Your task to perform on an android device: What's the time in San Francisco? Image 0: 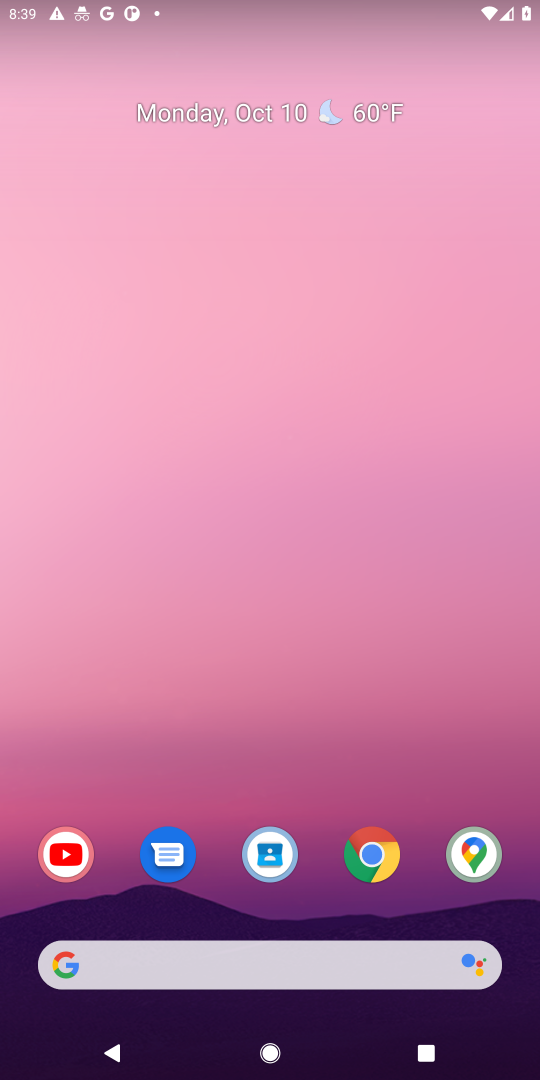
Step 0: click (375, 854)
Your task to perform on an android device: What's the time in San Francisco? Image 1: 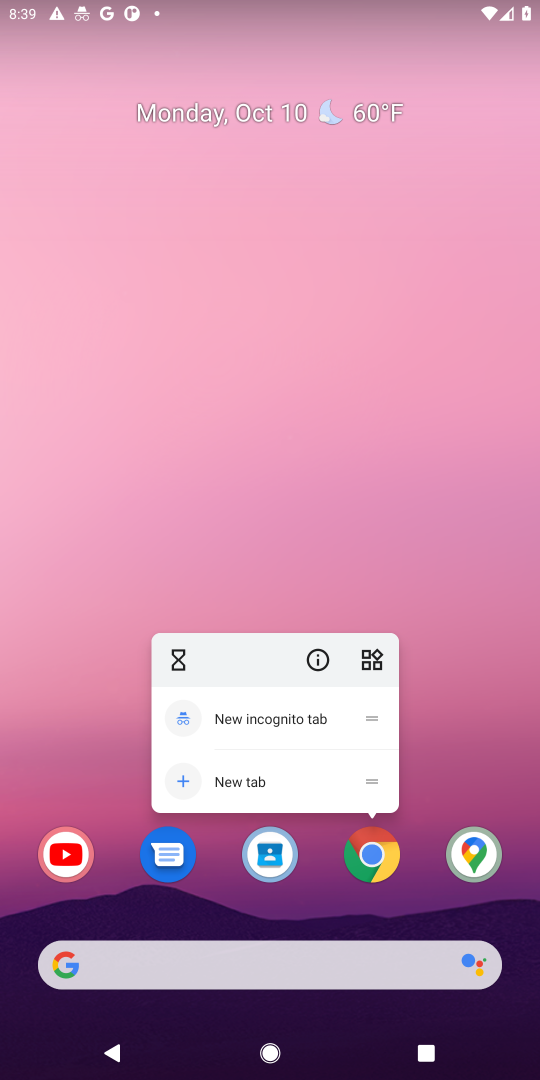
Step 1: click (368, 857)
Your task to perform on an android device: What's the time in San Francisco? Image 2: 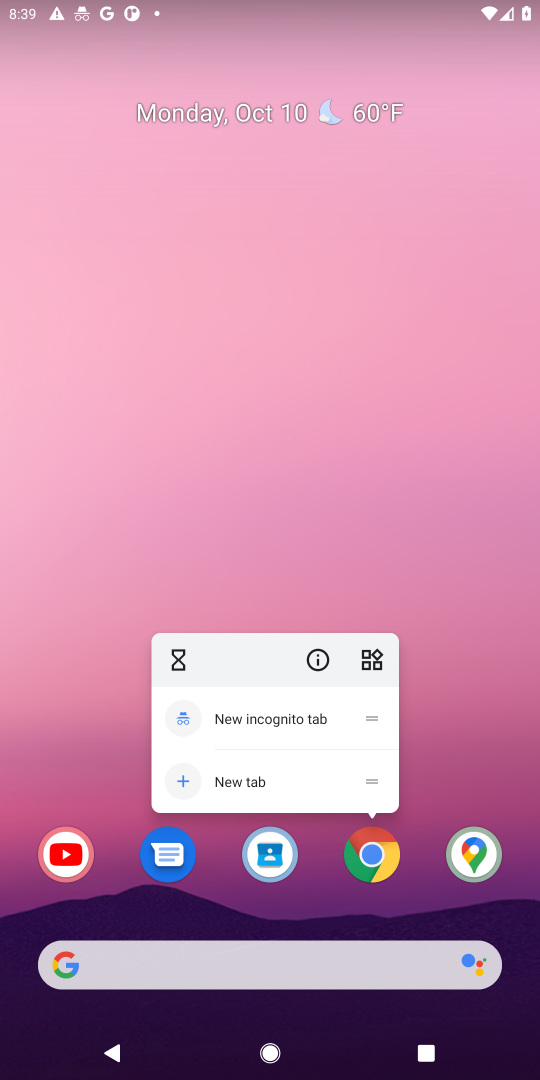
Step 2: click (367, 845)
Your task to perform on an android device: What's the time in San Francisco? Image 3: 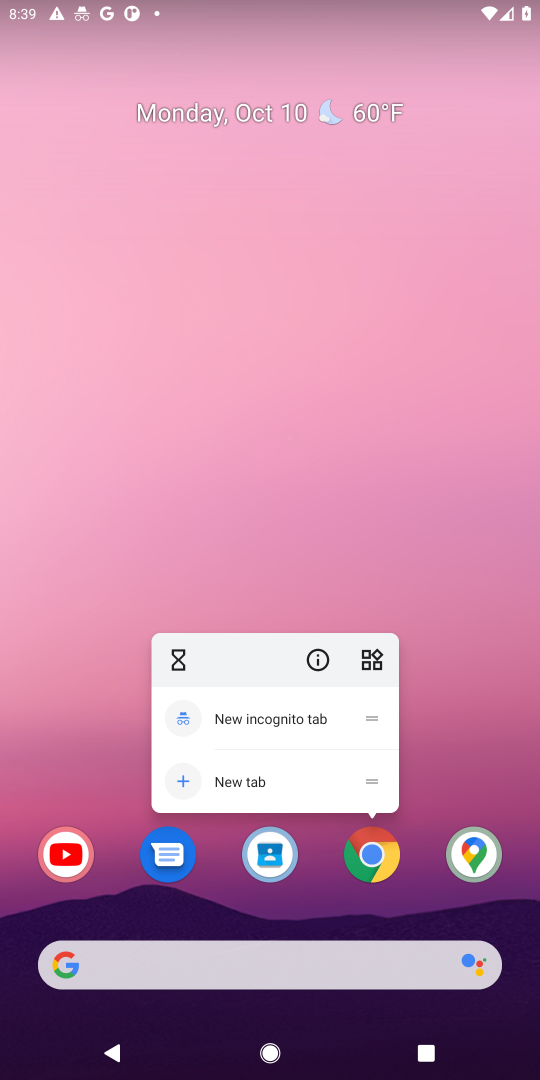
Step 3: click (367, 845)
Your task to perform on an android device: What's the time in San Francisco? Image 4: 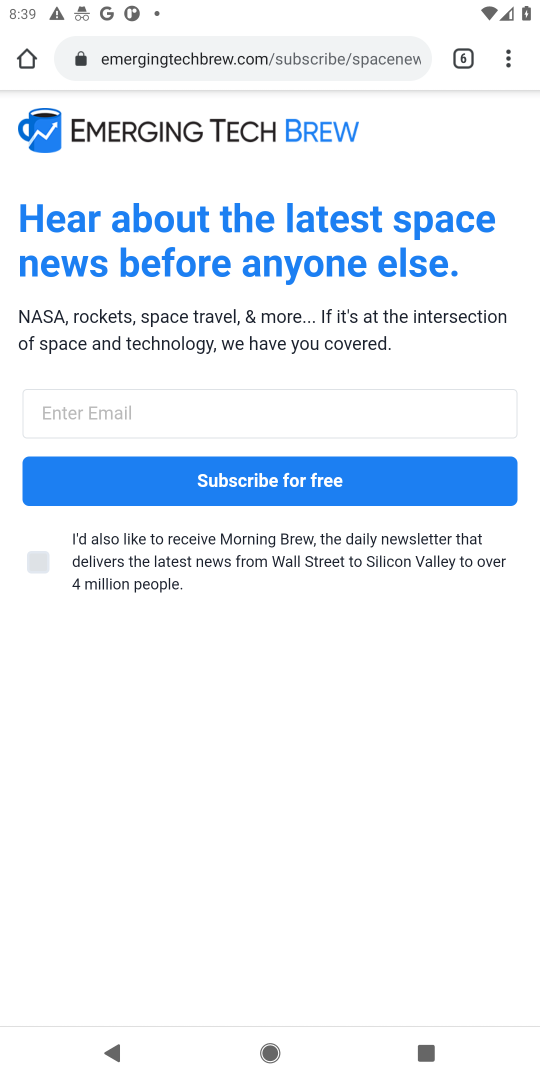
Step 4: click (283, 51)
Your task to perform on an android device: What's the time in San Francisco? Image 5: 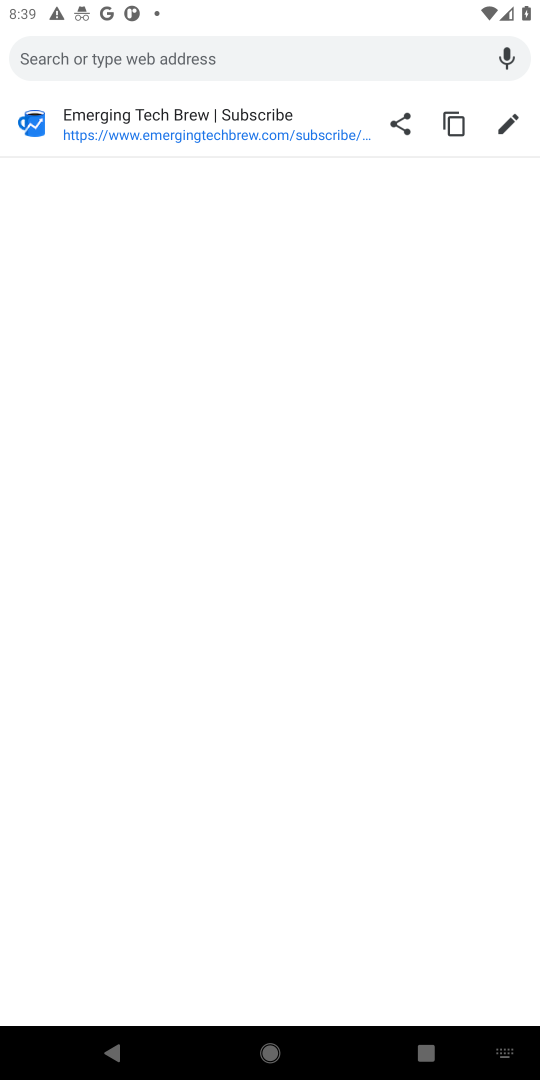
Step 5: type "What's the time in San Francisco"
Your task to perform on an android device: What's the time in San Francisco? Image 6: 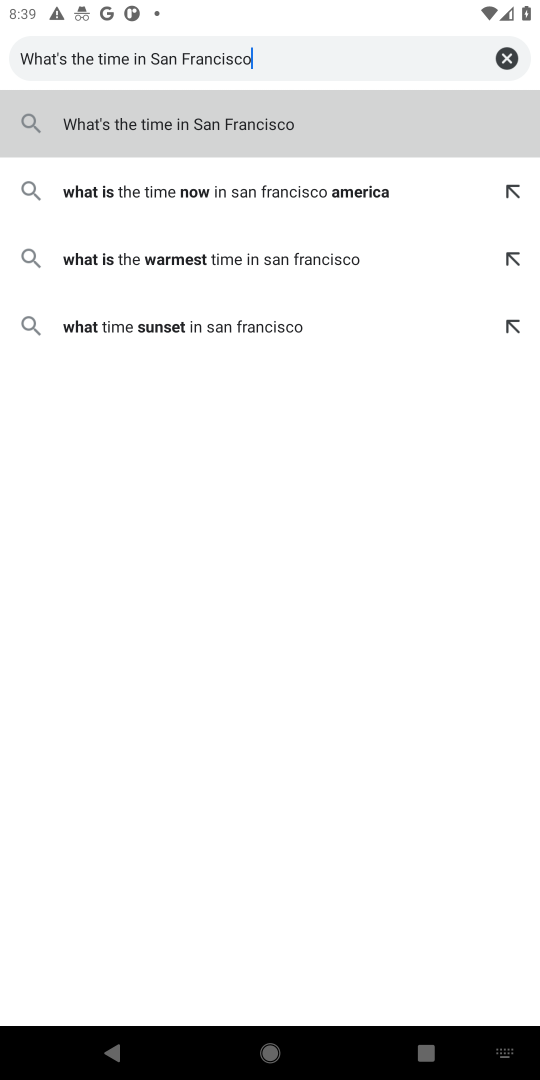
Step 6: press enter
Your task to perform on an android device: What's the time in San Francisco? Image 7: 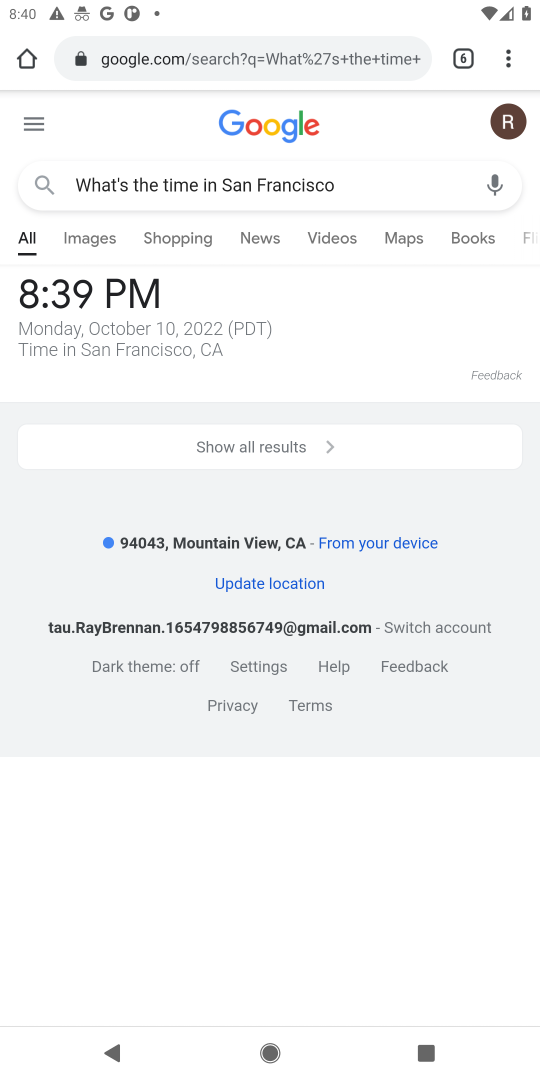
Step 7: task complete